Your task to perform on an android device: Clear the cart on newegg.com. Search for "asus rog" on newegg.com, select the first entry, and add it to the cart. Image 0: 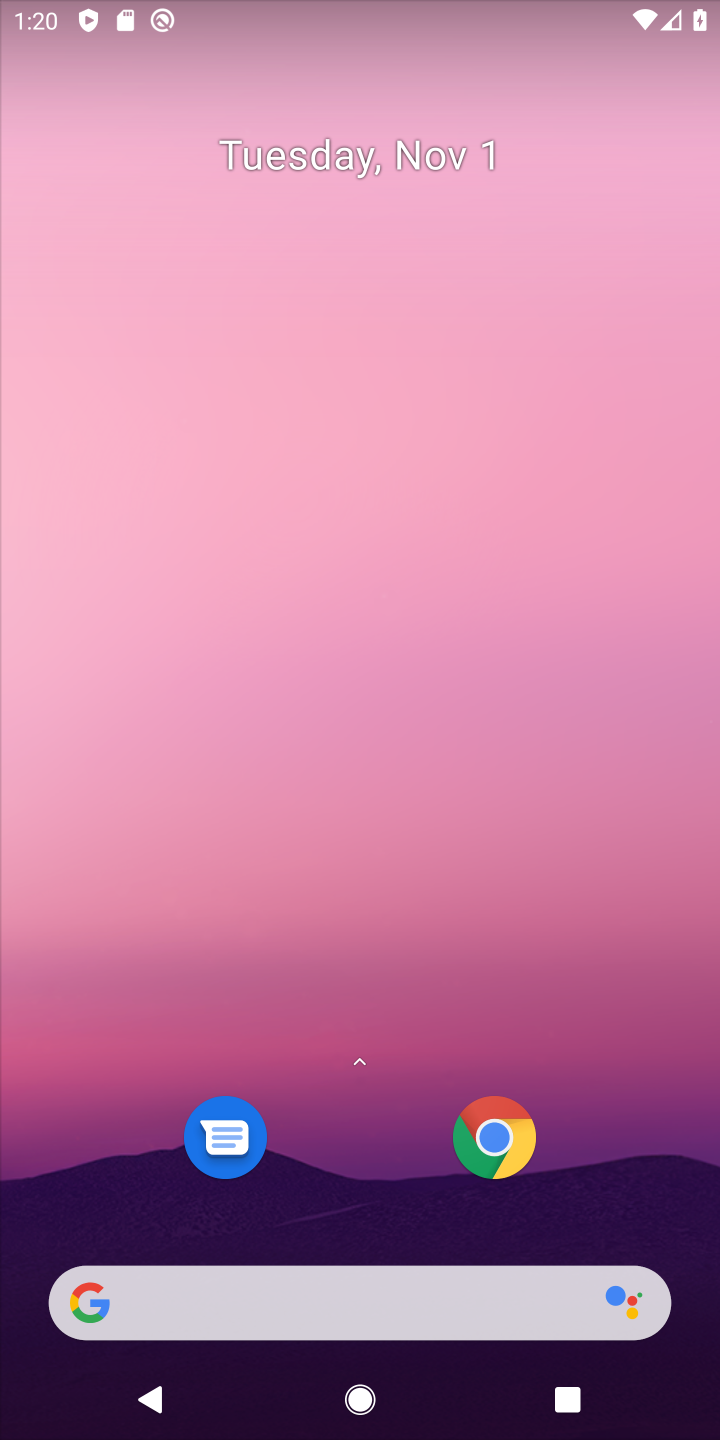
Step 0: click (497, 1307)
Your task to perform on an android device: Clear the cart on newegg.com. Search for "asus rog" on newegg.com, select the first entry, and add it to the cart. Image 1: 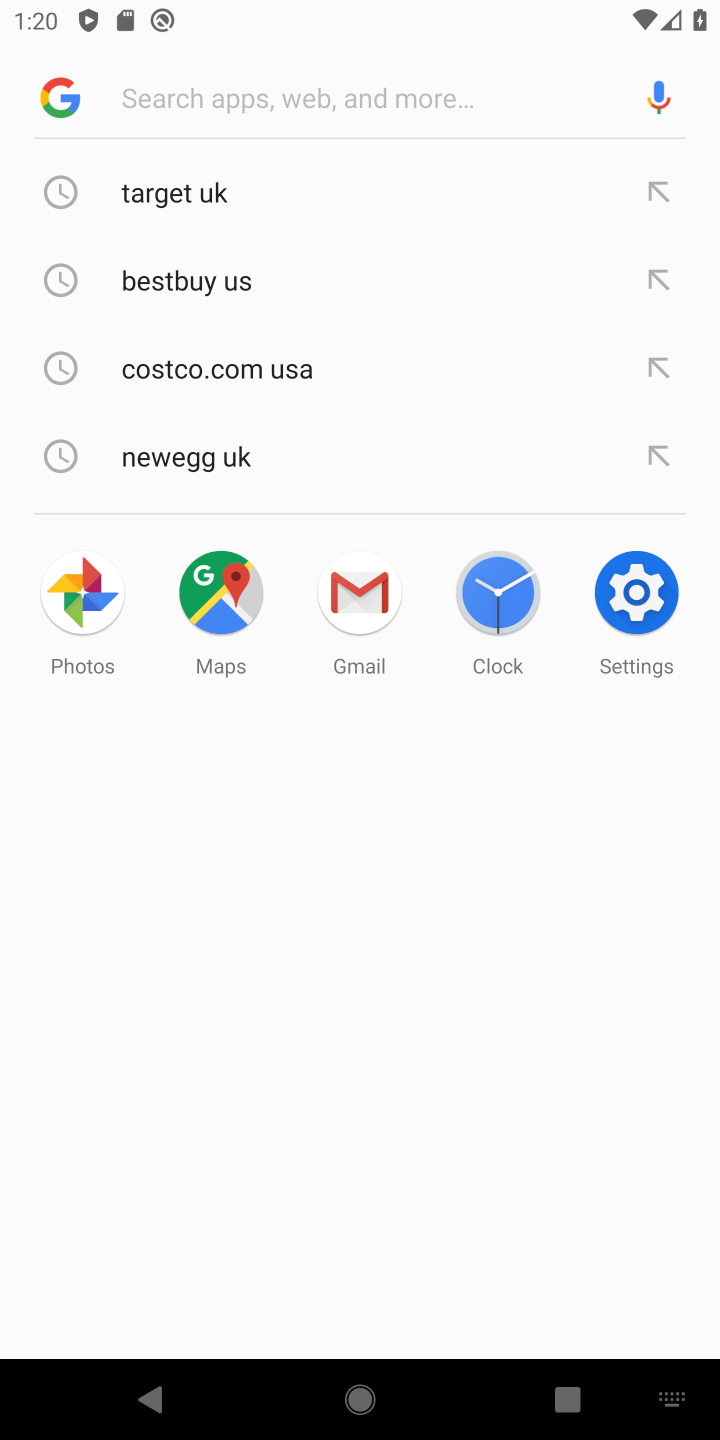
Step 1: type "newwge"
Your task to perform on an android device: Clear the cart on newegg.com. Search for "asus rog" on newegg.com, select the first entry, and add it to the cart. Image 2: 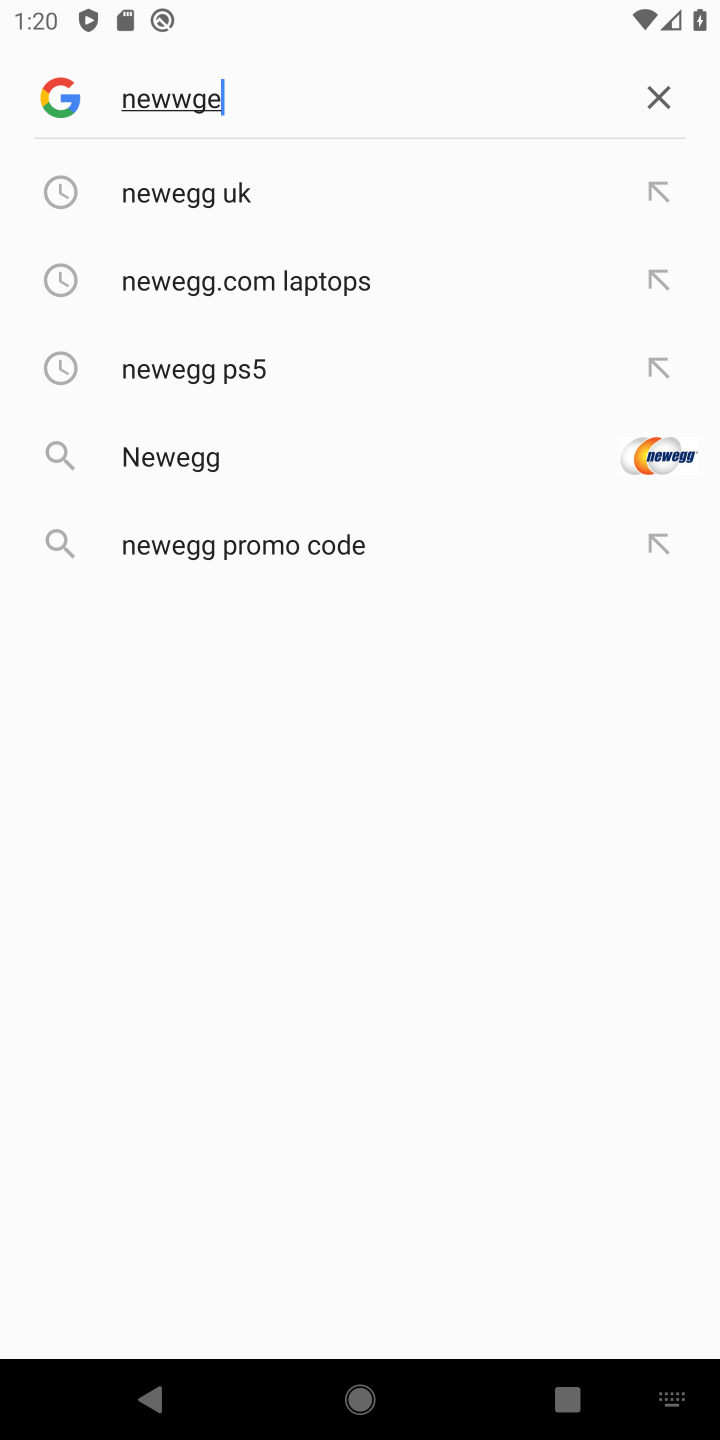
Step 2: click (205, 228)
Your task to perform on an android device: Clear the cart on newegg.com. Search for "asus rog" on newegg.com, select the first entry, and add it to the cart. Image 3: 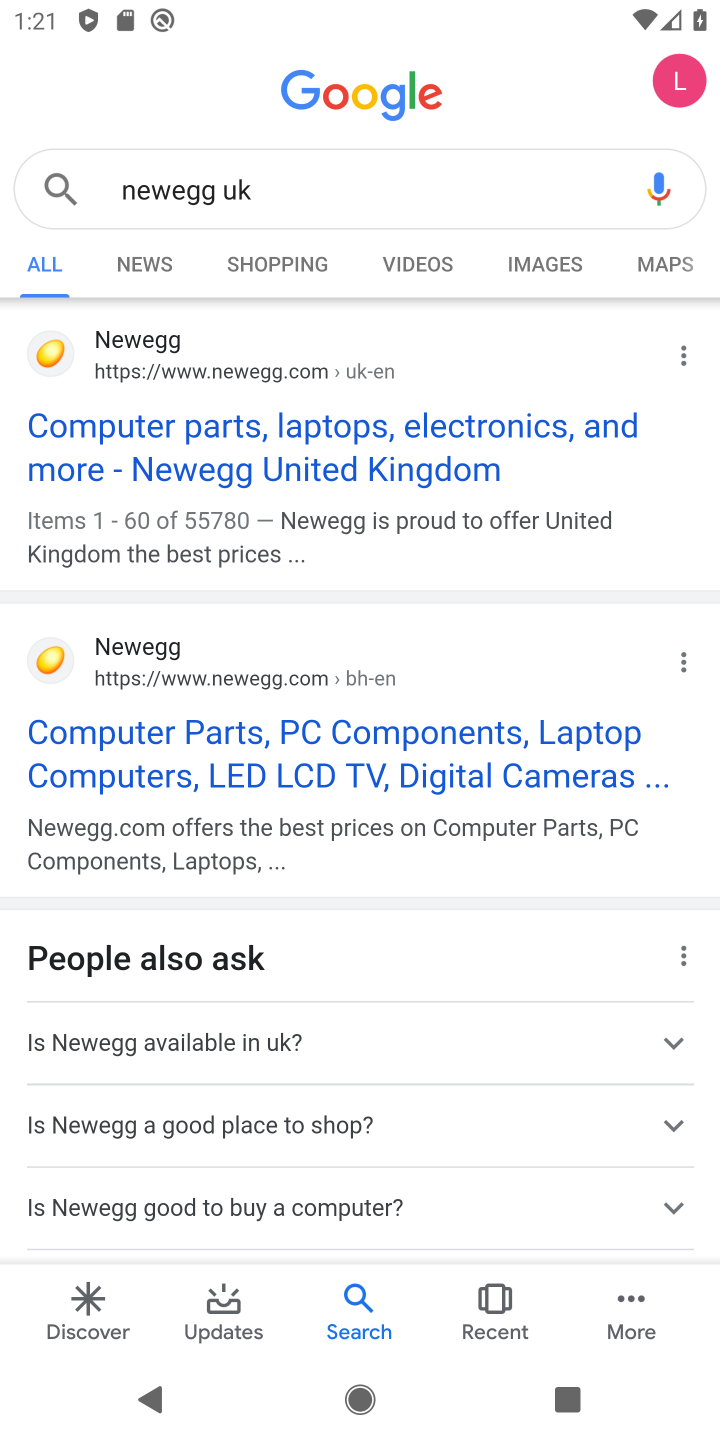
Step 3: click (221, 429)
Your task to perform on an android device: Clear the cart on newegg.com. Search for "asus rog" on newegg.com, select the first entry, and add it to the cart. Image 4: 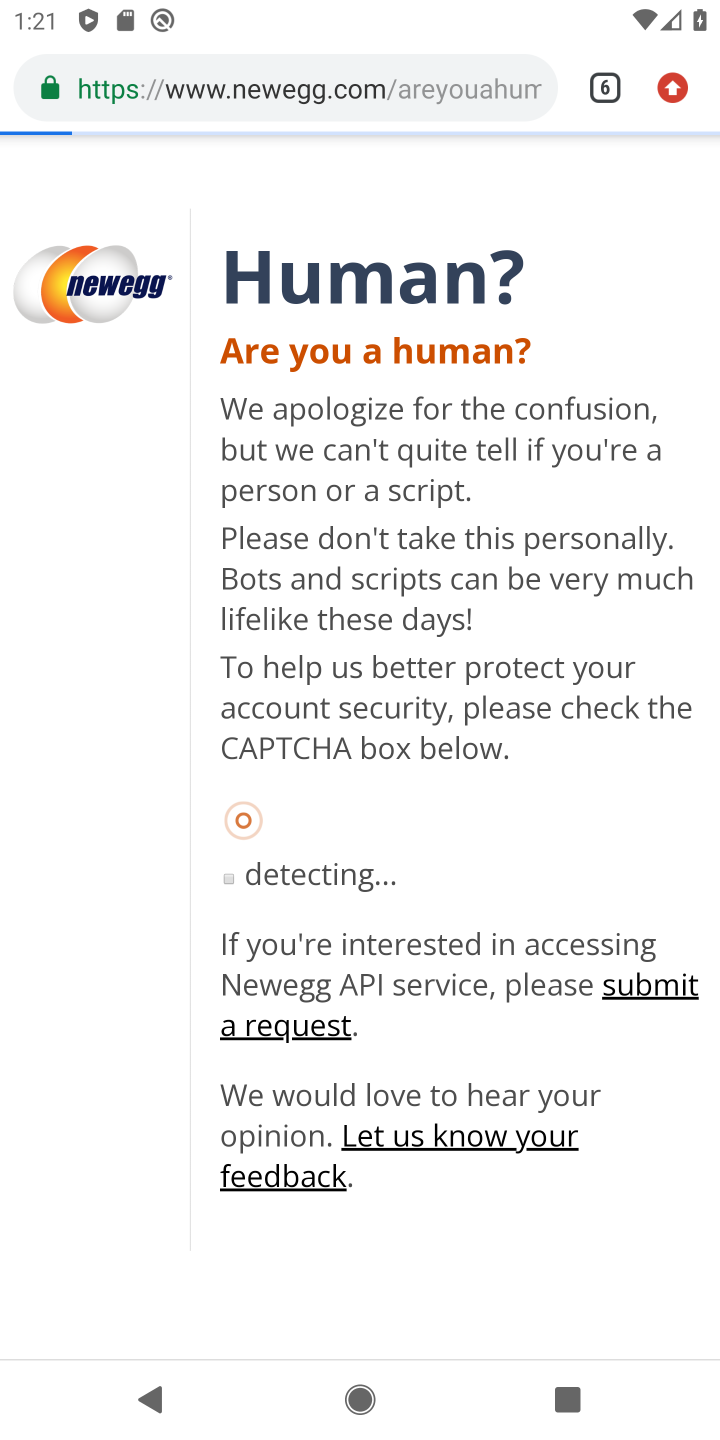
Step 4: task complete